Your task to perform on an android device: see tabs open on other devices in the chrome app Image 0: 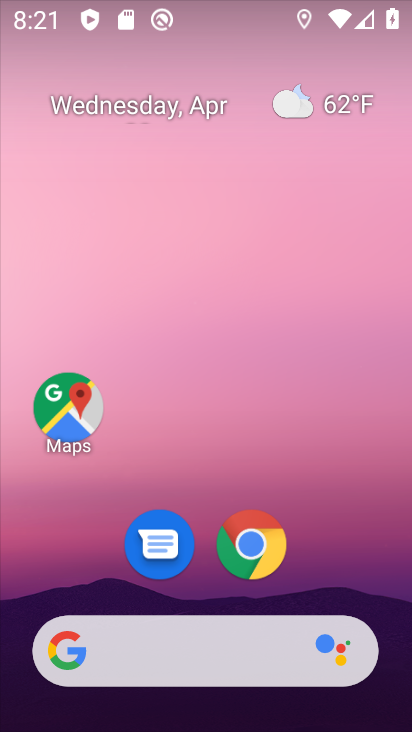
Step 0: click (271, 550)
Your task to perform on an android device: see tabs open on other devices in the chrome app Image 1: 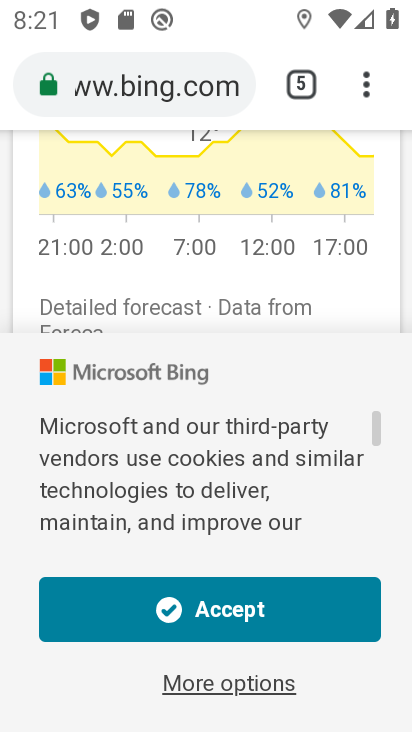
Step 1: task complete